Your task to perform on an android device: move an email to a new category in the gmail app Image 0: 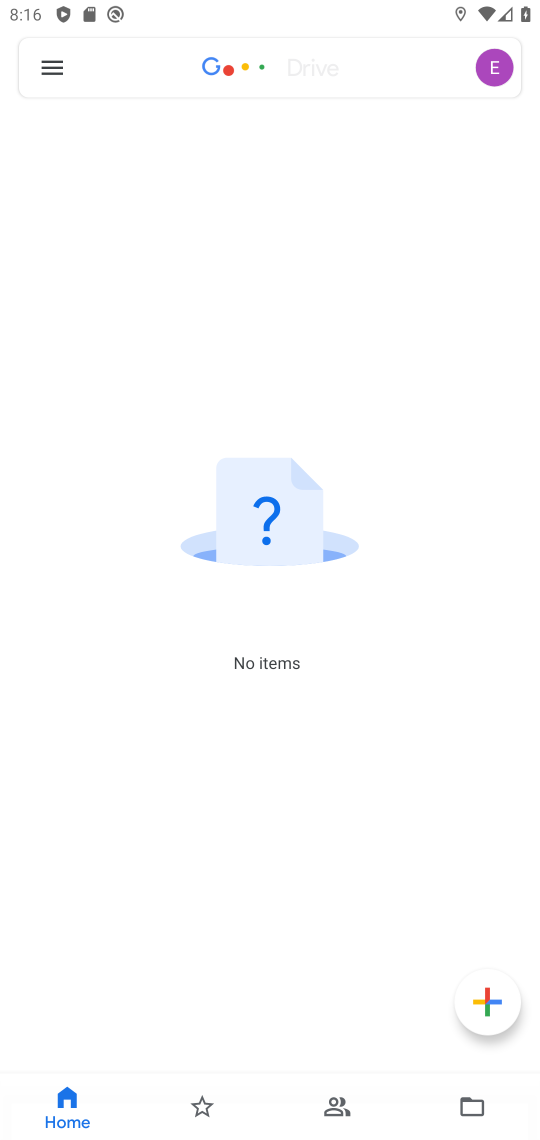
Step 0: press home button
Your task to perform on an android device: move an email to a new category in the gmail app Image 1: 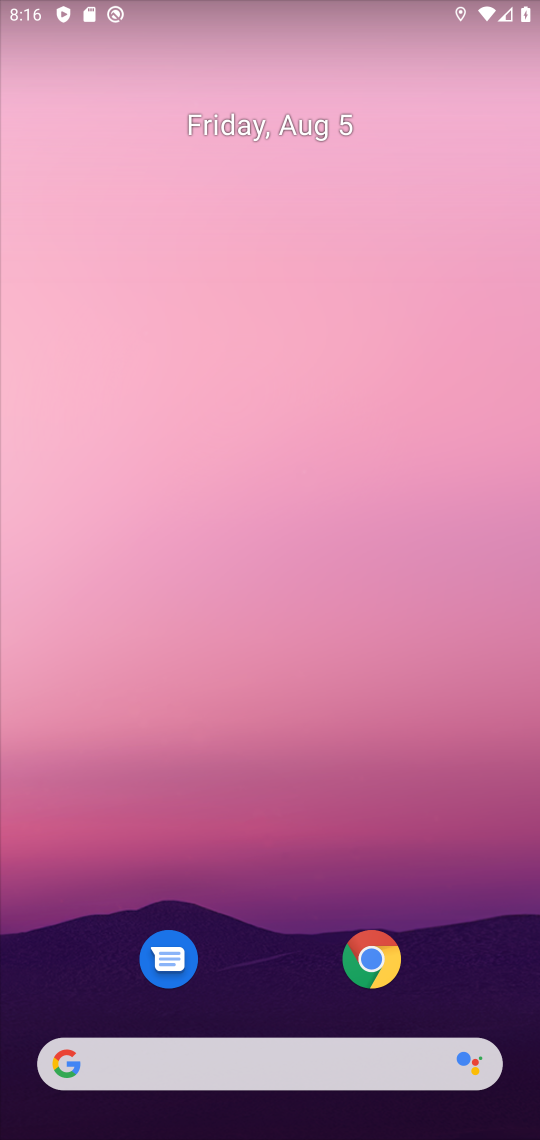
Step 1: drag from (299, 983) to (463, 474)
Your task to perform on an android device: move an email to a new category in the gmail app Image 2: 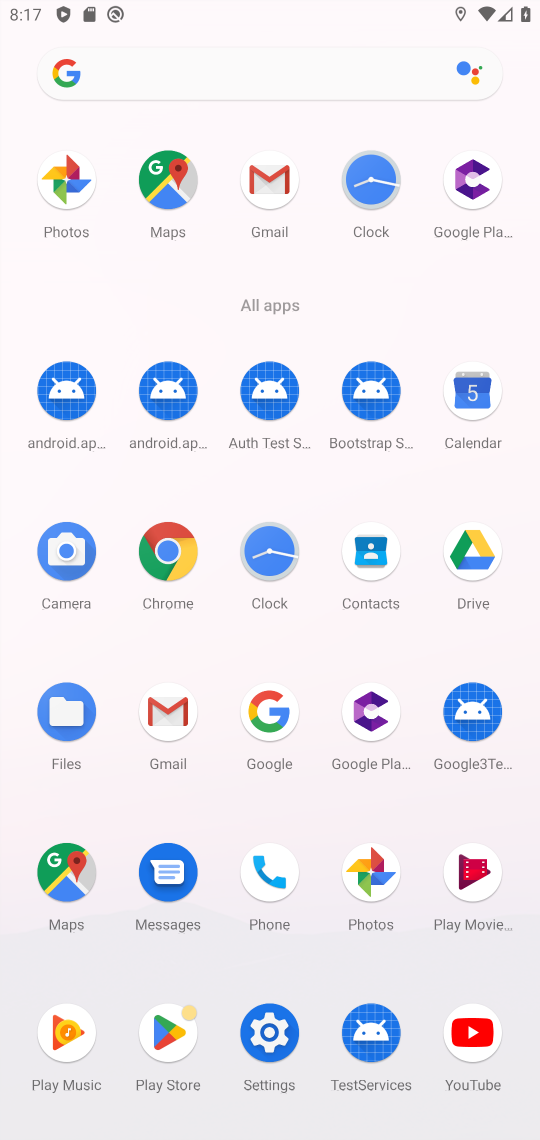
Step 2: click (177, 698)
Your task to perform on an android device: move an email to a new category in the gmail app Image 3: 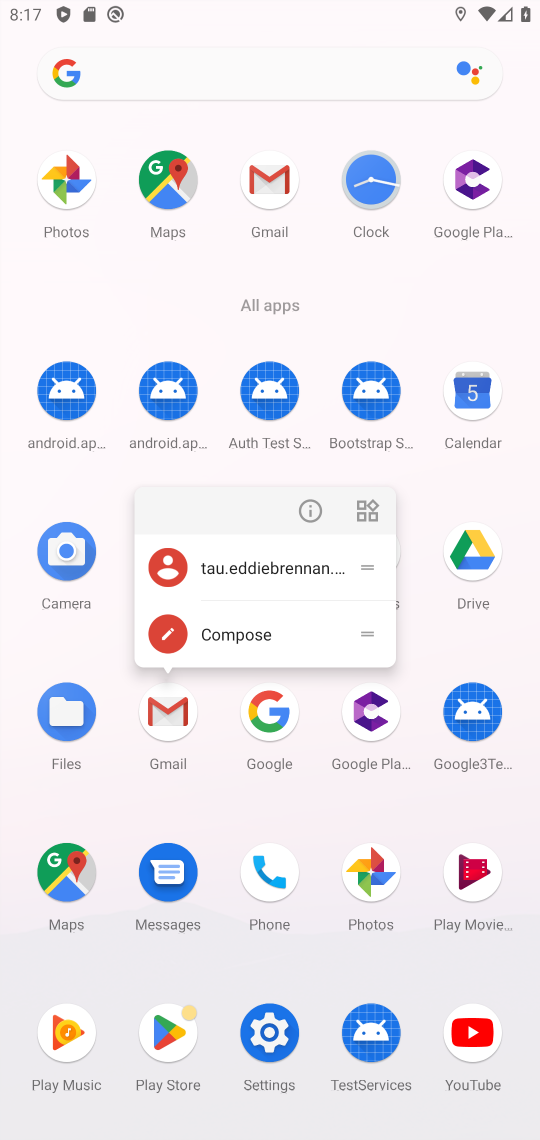
Step 3: click (311, 508)
Your task to perform on an android device: move an email to a new category in the gmail app Image 4: 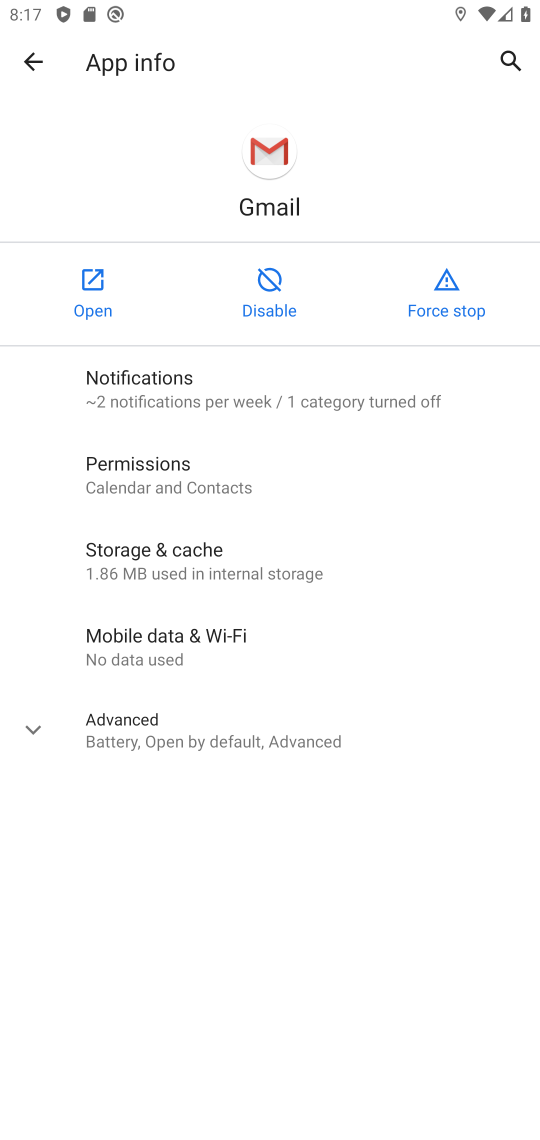
Step 4: click (92, 270)
Your task to perform on an android device: move an email to a new category in the gmail app Image 5: 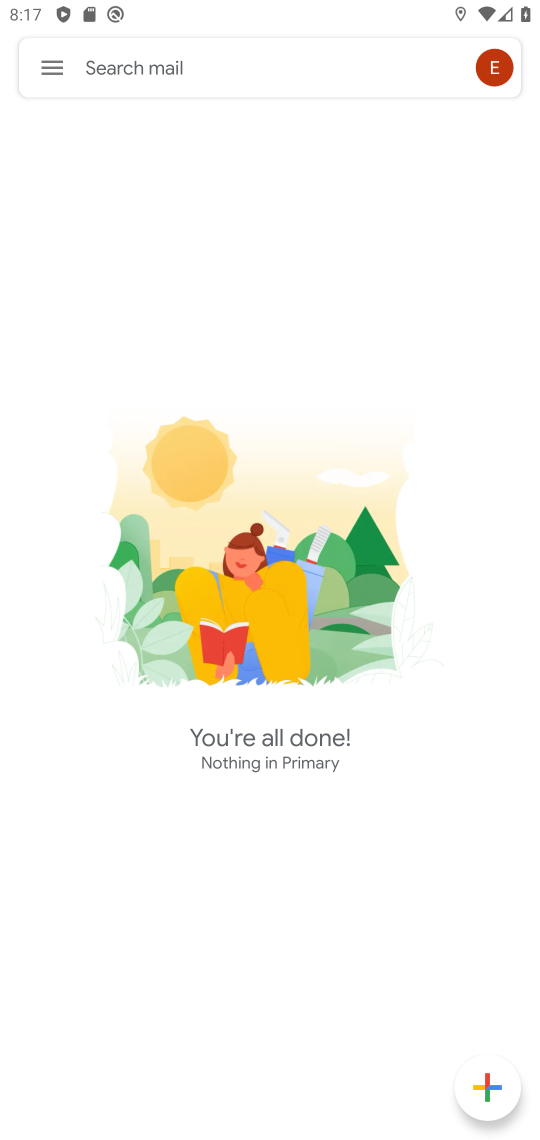
Step 5: click (237, 260)
Your task to perform on an android device: move an email to a new category in the gmail app Image 6: 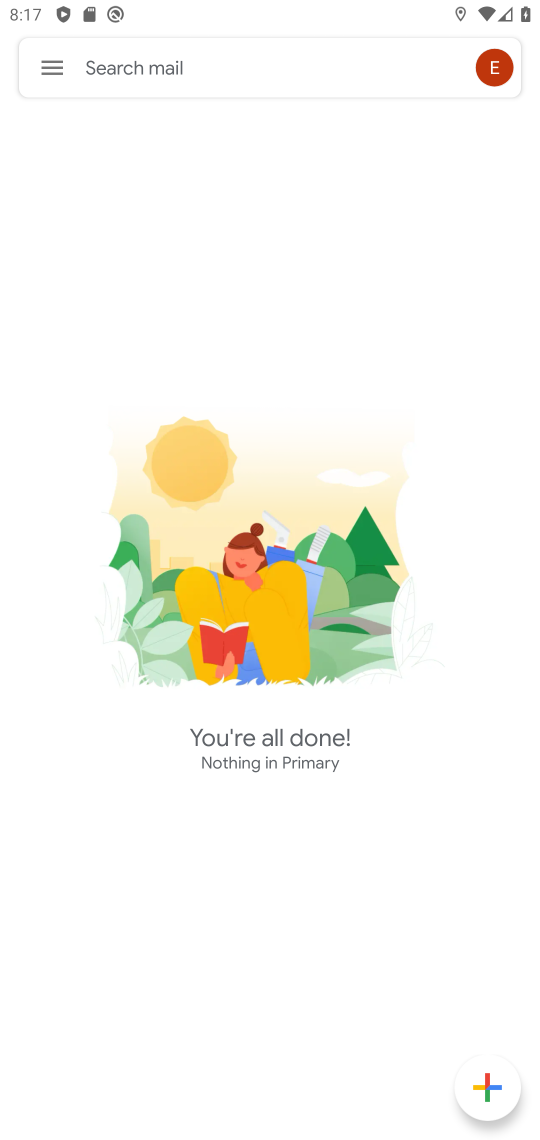
Step 6: task complete